Your task to perform on an android device: Open accessibility settings Image 0: 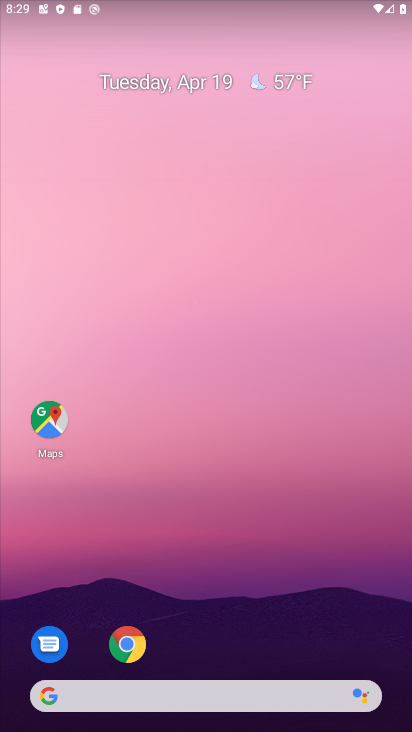
Step 0: drag from (166, 646) to (241, 354)
Your task to perform on an android device: Open accessibility settings Image 1: 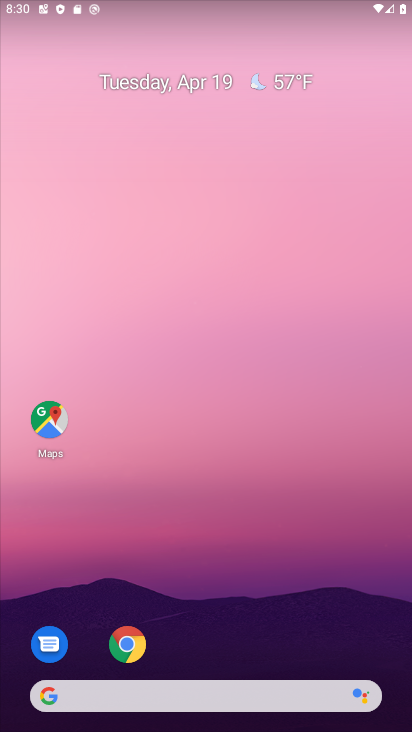
Step 1: drag from (245, 532) to (343, 95)
Your task to perform on an android device: Open accessibility settings Image 2: 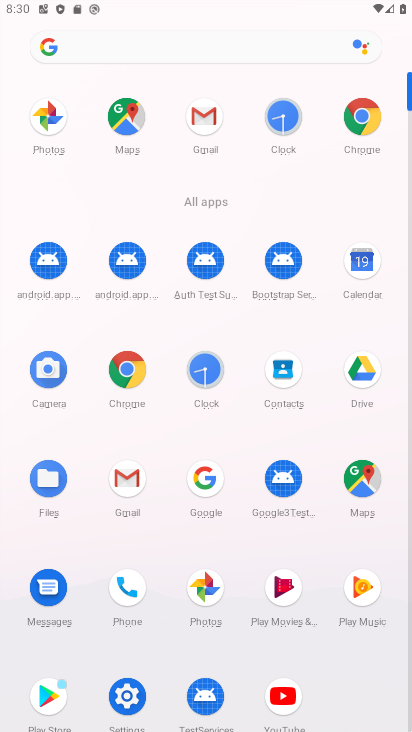
Step 2: drag from (179, 613) to (247, 305)
Your task to perform on an android device: Open accessibility settings Image 3: 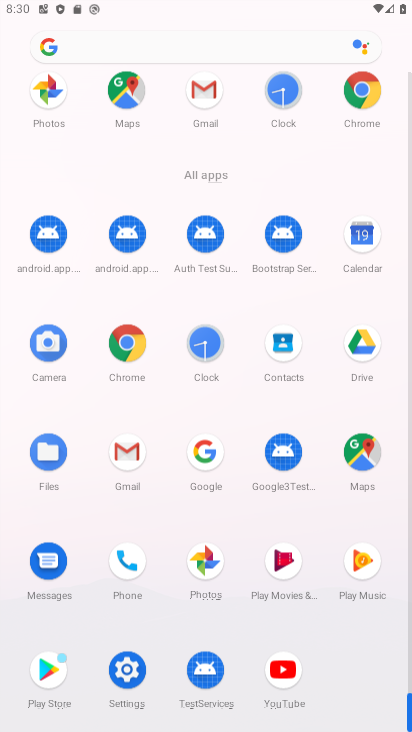
Step 3: click (120, 643)
Your task to perform on an android device: Open accessibility settings Image 4: 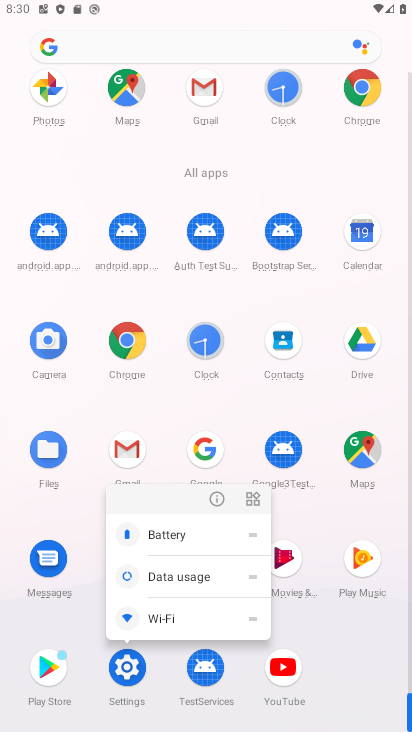
Step 4: click (129, 667)
Your task to perform on an android device: Open accessibility settings Image 5: 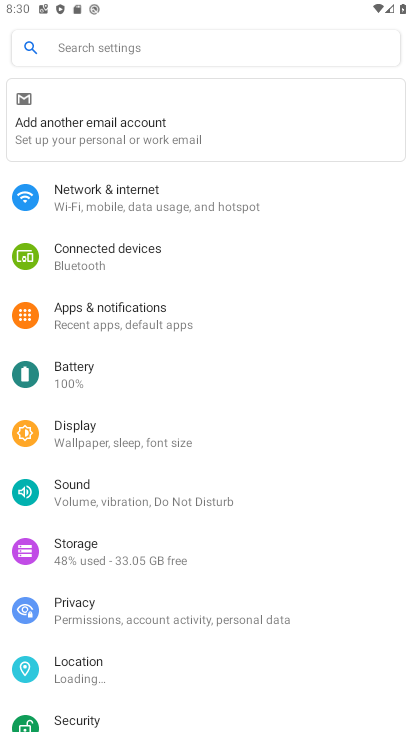
Step 5: drag from (129, 587) to (246, 209)
Your task to perform on an android device: Open accessibility settings Image 6: 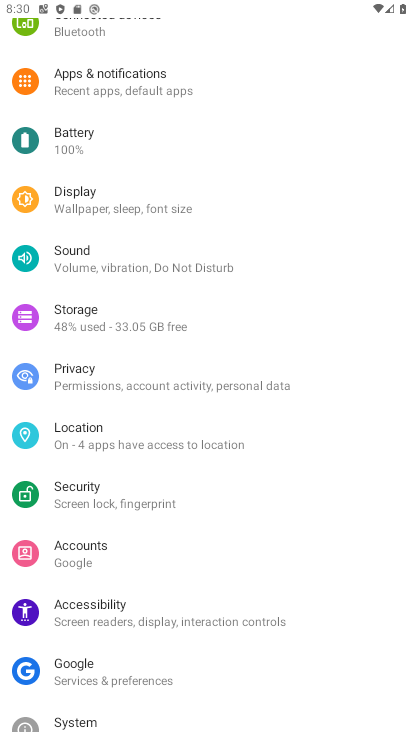
Step 6: click (138, 607)
Your task to perform on an android device: Open accessibility settings Image 7: 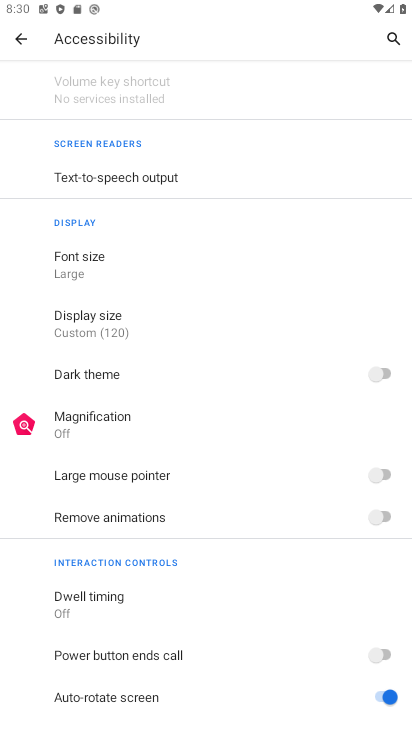
Step 7: task complete